Your task to perform on an android device: Show me recent news Image 0: 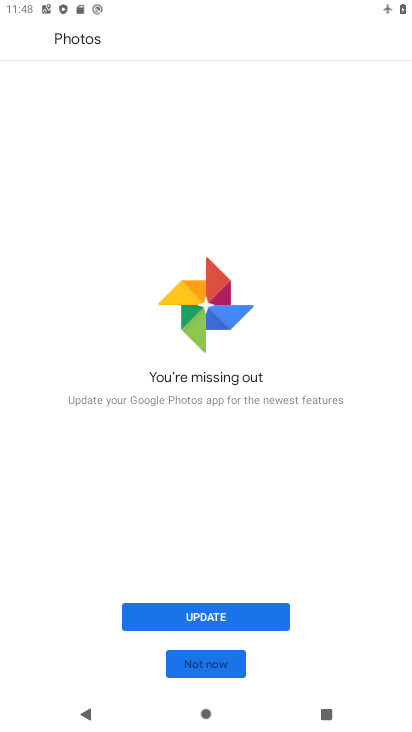
Step 0: press home button
Your task to perform on an android device: Show me recent news Image 1: 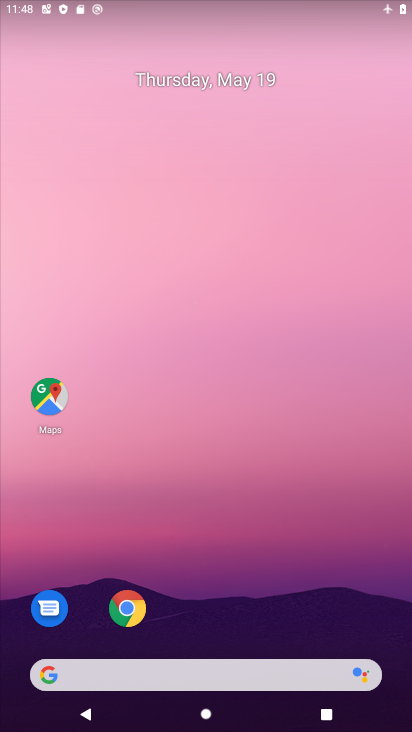
Step 1: task complete